Your task to perform on an android device: change your default location settings in chrome Image 0: 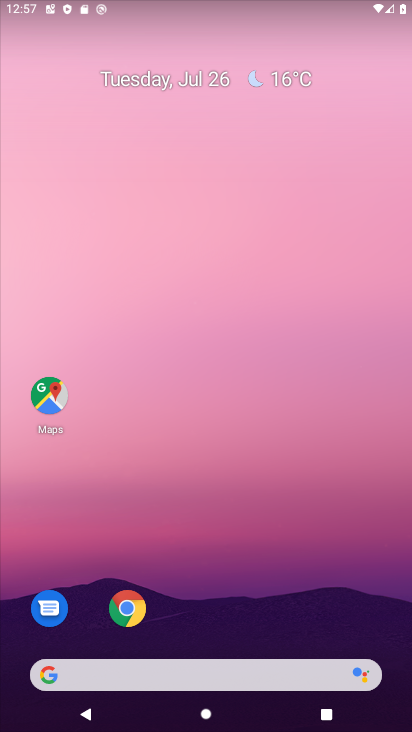
Step 0: drag from (291, 612) to (228, 11)
Your task to perform on an android device: change your default location settings in chrome Image 1: 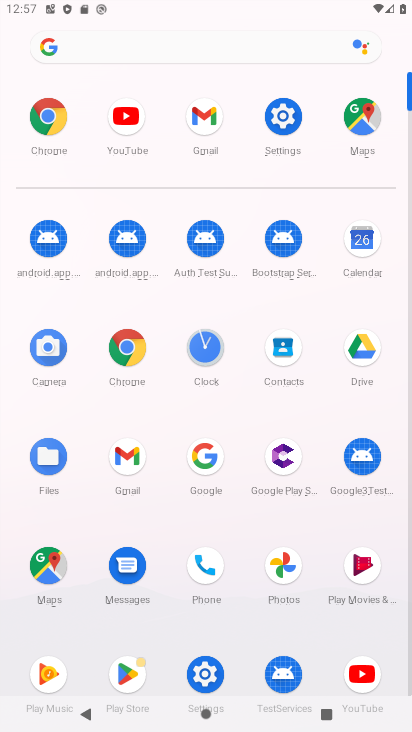
Step 1: click (47, 136)
Your task to perform on an android device: change your default location settings in chrome Image 2: 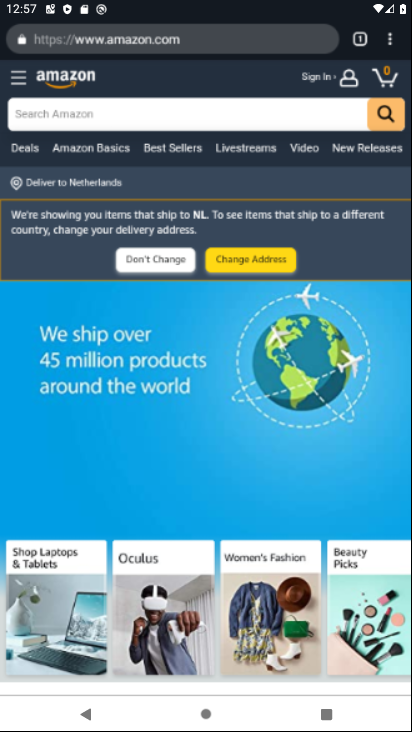
Step 2: task complete